Your task to perform on an android device: Go to Yahoo.com Image 0: 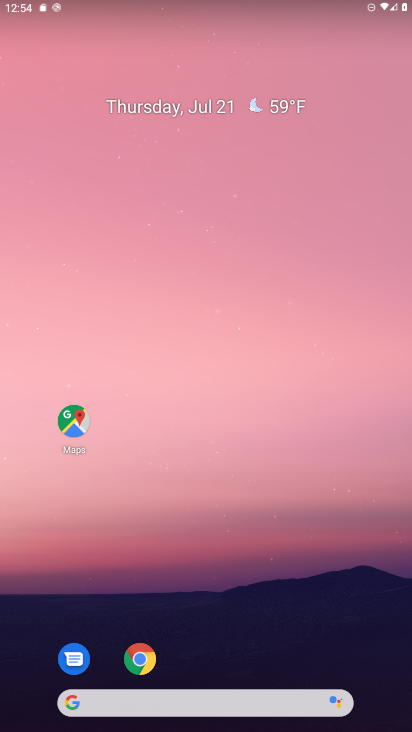
Step 0: click (149, 663)
Your task to perform on an android device: Go to Yahoo.com Image 1: 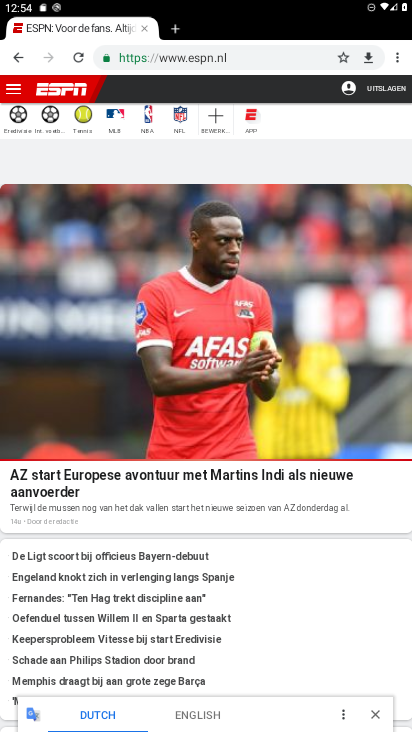
Step 1: click (179, 30)
Your task to perform on an android device: Go to Yahoo.com Image 2: 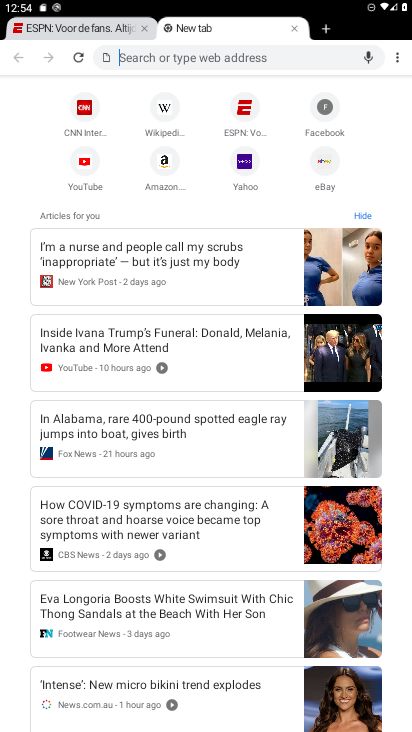
Step 2: click (145, 29)
Your task to perform on an android device: Go to Yahoo.com Image 3: 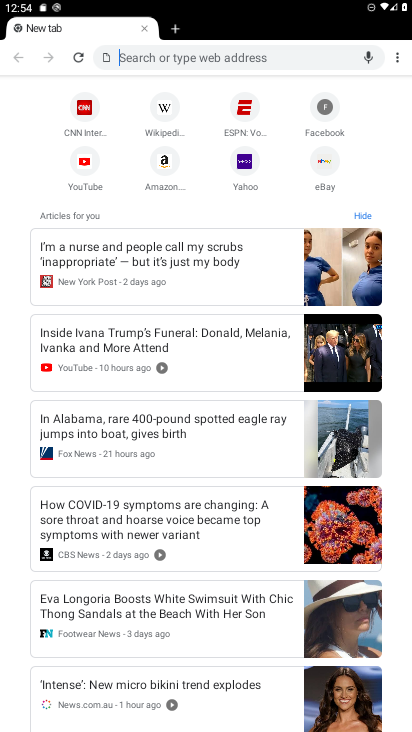
Step 3: click (249, 164)
Your task to perform on an android device: Go to Yahoo.com Image 4: 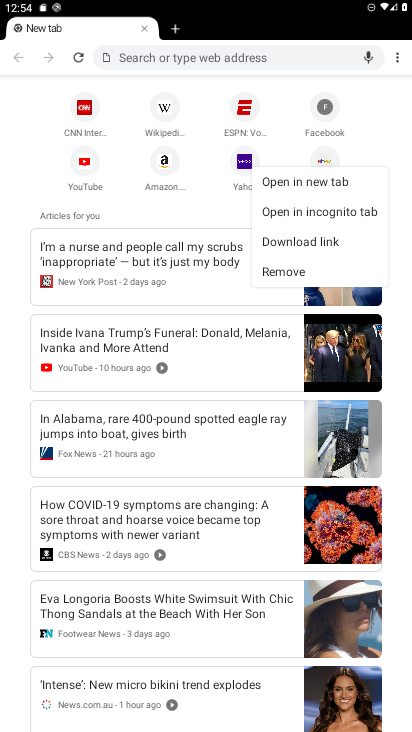
Step 4: click (250, 156)
Your task to perform on an android device: Go to Yahoo.com Image 5: 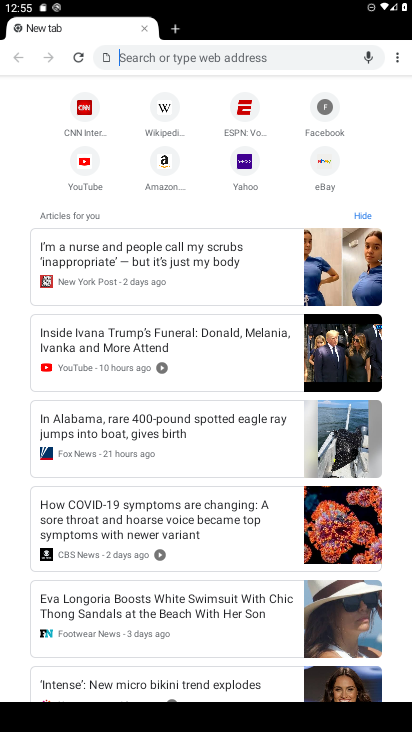
Step 5: click (249, 161)
Your task to perform on an android device: Go to Yahoo.com Image 6: 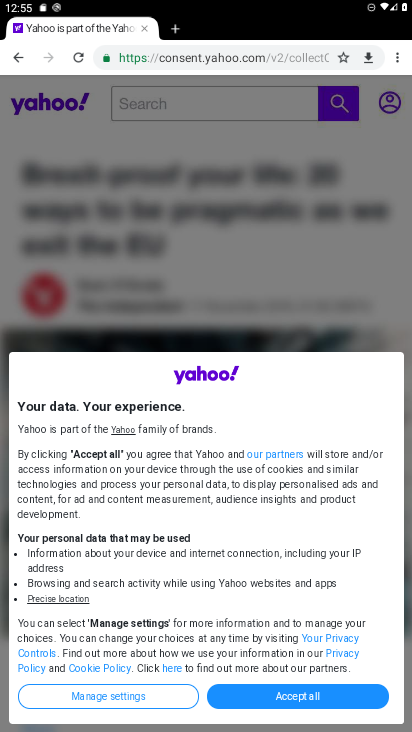
Step 6: task complete